Your task to perform on an android device: Open Youtube and go to the subscriptions tab Image 0: 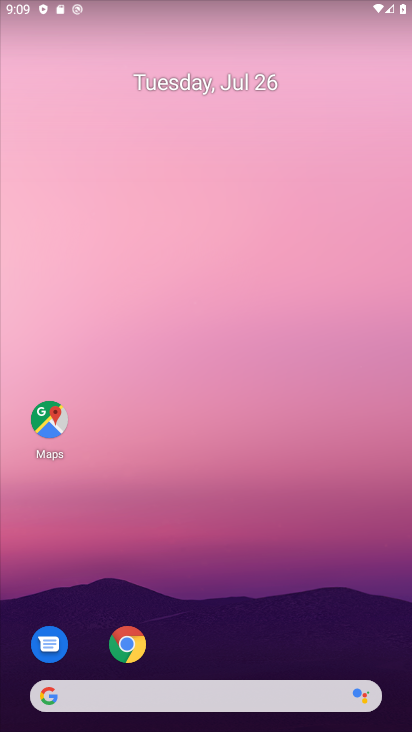
Step 0: drag from (206, 635) to (192, 17)
Your task to perform on an android device: Open Youtube and go to the subscriptions tab Image 1: 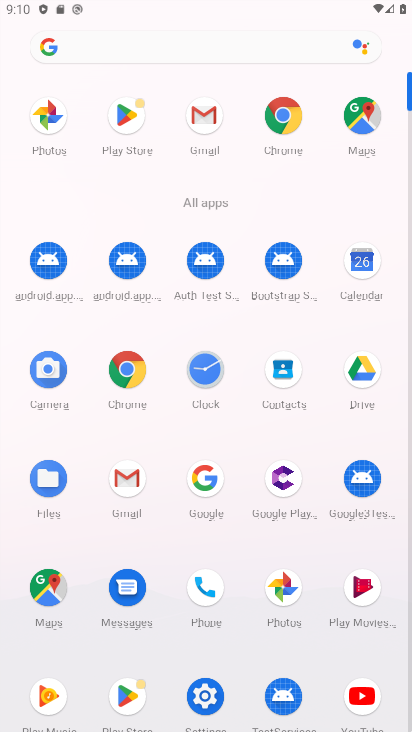
Step 1: click (352, 687)
Your task to perform on an android device: Open Youtube and go to the subscriptions tab Image 2: 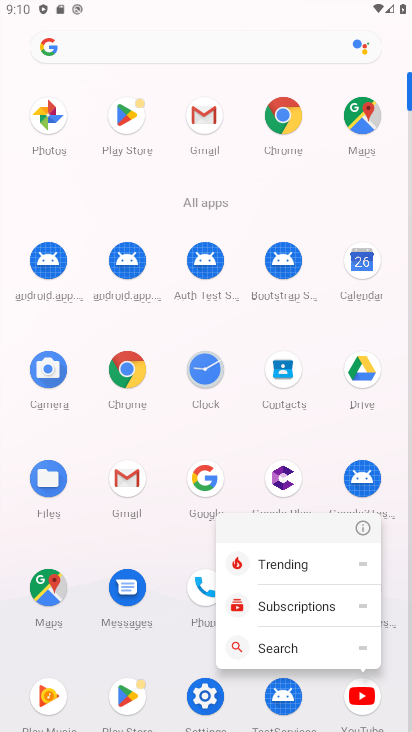
Step 2: click (352, 686)
Your task to perform on an android device: Open Youtube and go to the subscriptions tab Image 3: 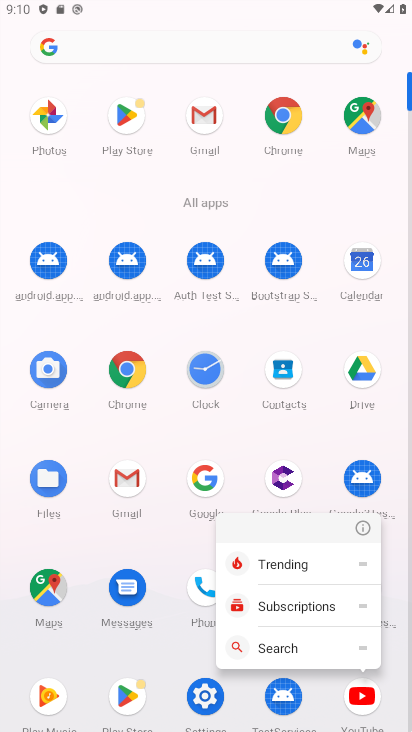
Step 3: click (366, 706)
Your task to perform on an android device: Open Youtube and go to the subscriptions tab Image 4: 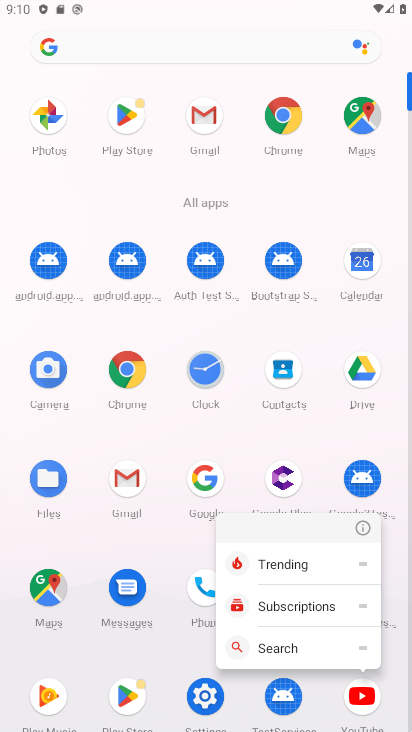
Step 4: click (366, 705)
Your task to perform on an android device: Open Youtube and go to the subscriptions tab Image 5: 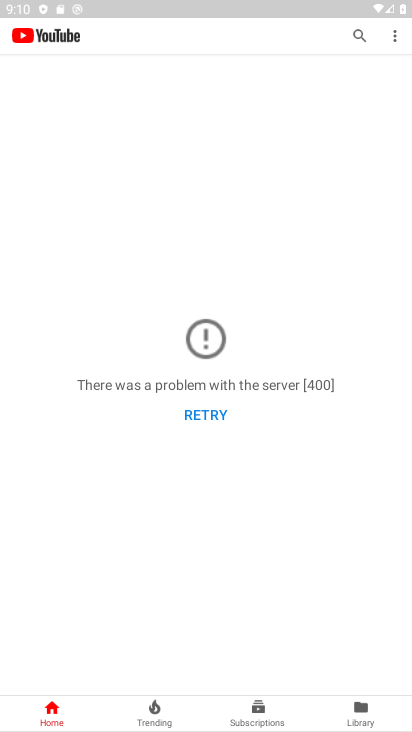
Step 5: click (253, 713)
Your task to perform on an android device: Open Youtube and go to the subscriptions tab Image 6: 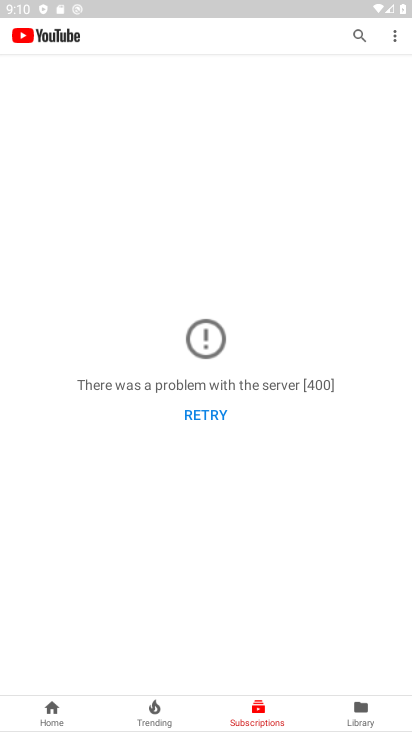
Step 6: click (196, 415)
Your task to perform on an android device: Open Youtube and go to the subscriptions tab Image 7: 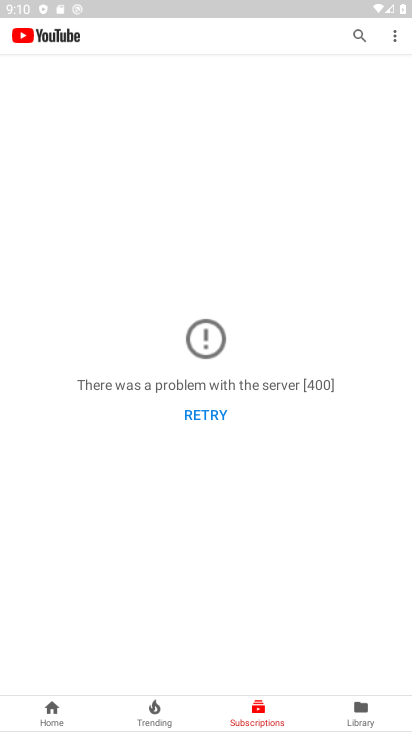
Step 7: click (197, 416)
Your task to perform on an android device: Open Youtube and go to the subscriptions tab Image 8: 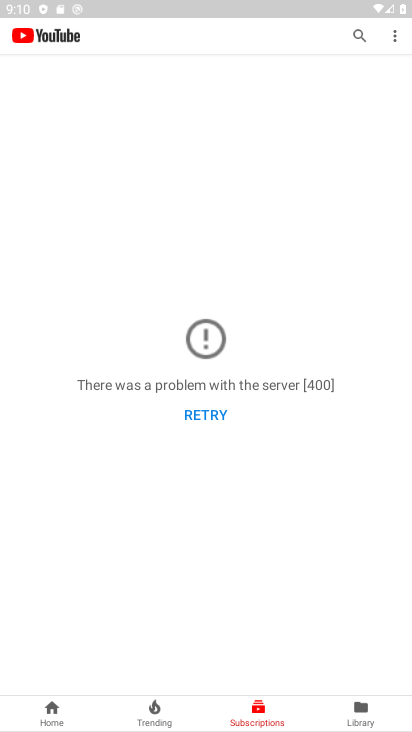
Step 8: click (205, 419)
Your task to perform on an android device: Open Youtube and go to the subscriptions tab Image 9: 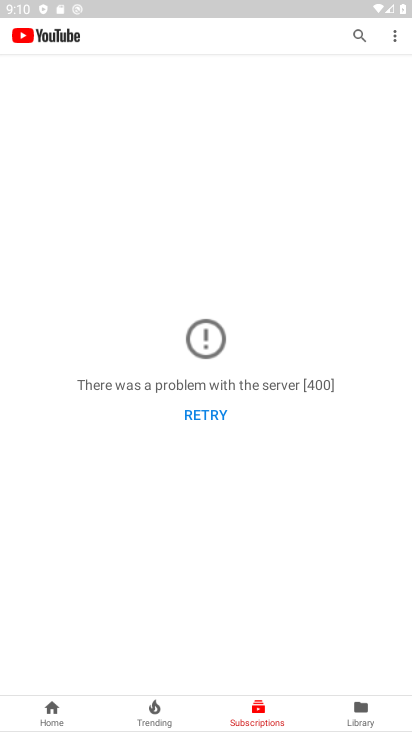
Step 9: click (209, 419)
Your task to perform on an android device: Open Youtube and go to the subscriptions tab Image 10: 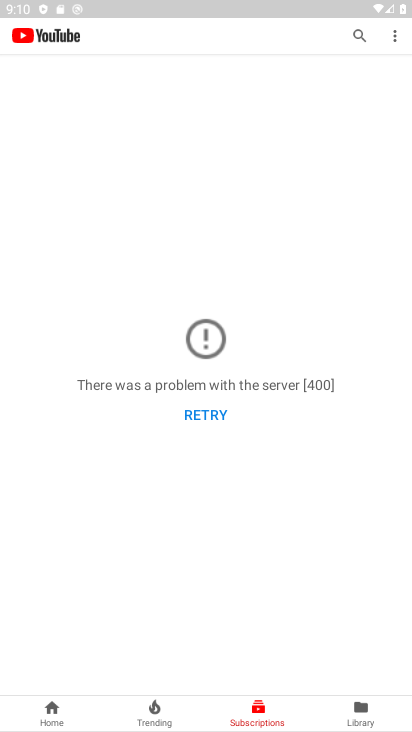
Step 10: task complete